Your task to perform on an android device: Toggle the flashlight Image 0: 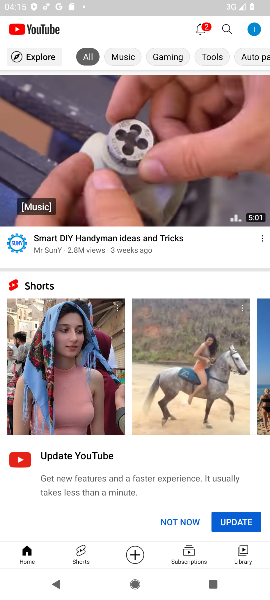
Step 0: press home button
Your task to perform on an android device: Toggle the flashlight Image 1: 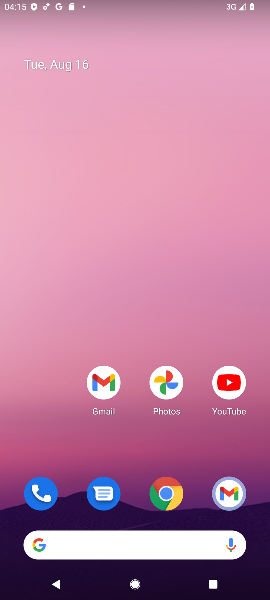
Step 1: drag from (130, 2) to (127, 306)
Your task to perform on an android device: Toggle the flashlight Image 2: 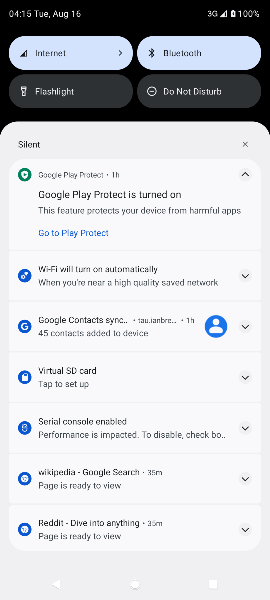
Step 2: drag from (135, 14) to (138, 319)
Your task to perform on an android device: Toggle the flashlight Image 3: 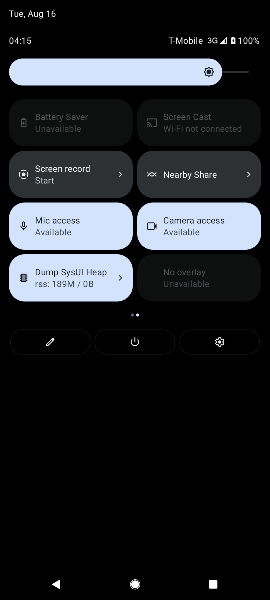
Step 3: click (49, 345)
Your task to perform on an android device: Toggle the flashlight Image 4: 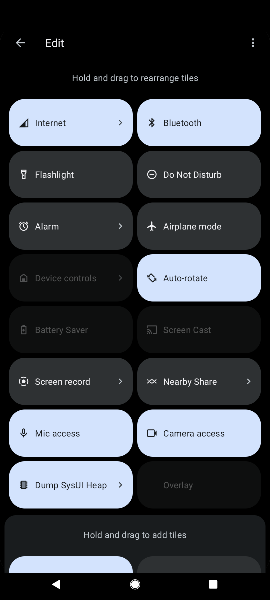
Step 4: click (65, 182)
Your task to perform on an android device: Toggle the flashlight Image 5: 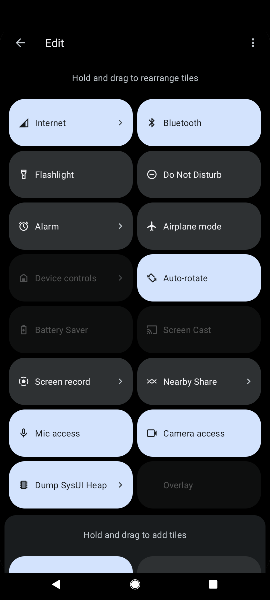
Step 5: task complete